Your task to perform on an android device: remove spam from my inbox in the gmail app Image 0: 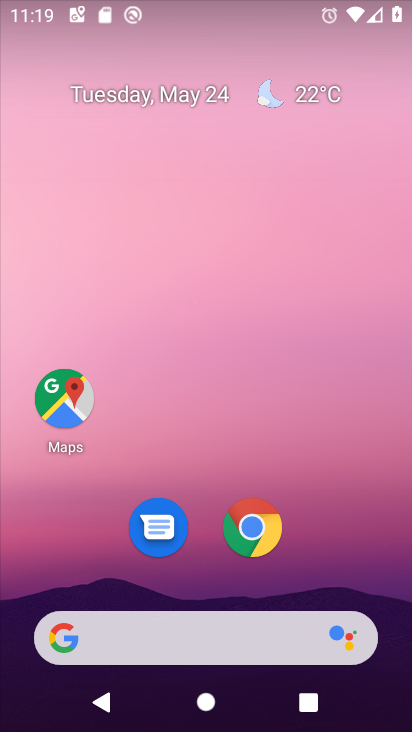
Step 0: press home button
Your task to perform on an android device: remove spam from my inbox in the gmail app Image 1: 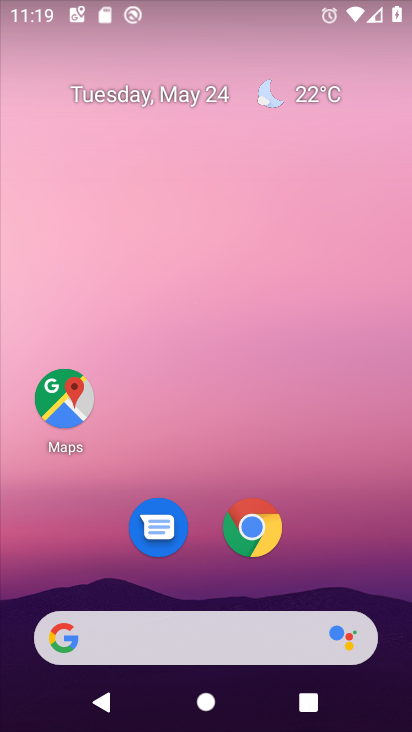
Step 1: drag from (192, 646) to (325, 206)
Your task to perform on an android device: remove spam from my inbox in the gmail app Image 2: 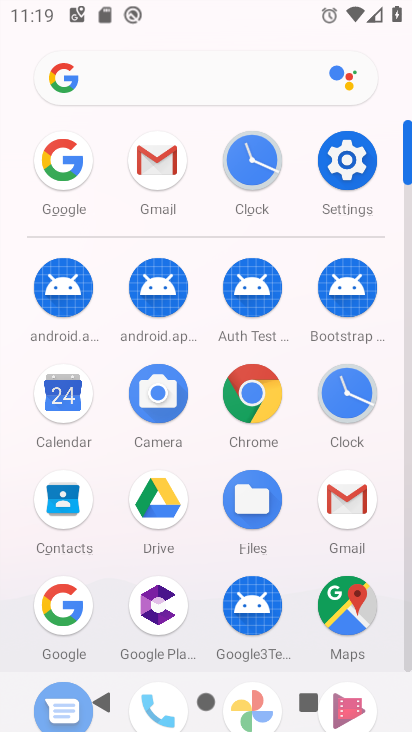
Step 2: click (142, 165)
Your task to perform on an android device: remove spam from my inbox in the gmail app Image 3: 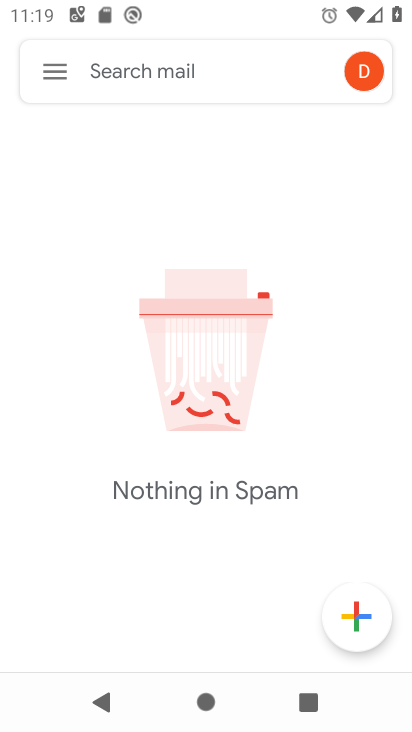
Step 3: task complete